Your task to perform on an android device: find which apps use the phone's location Image 0: 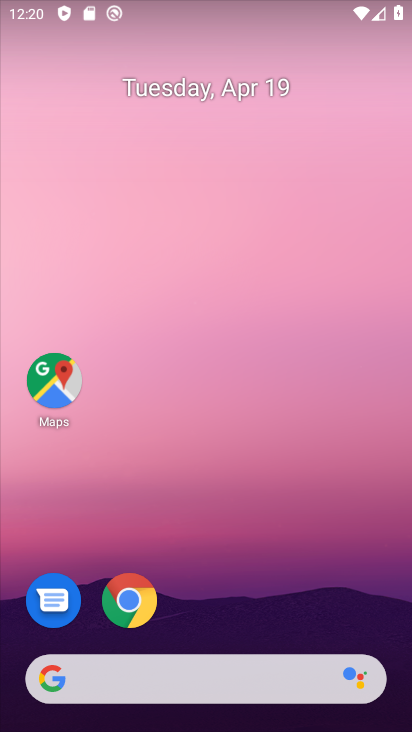
Step 0: drag from (253, 590) to (266, 142)
Your task to perform on an android device: find which apps use the phone's location Image 1: 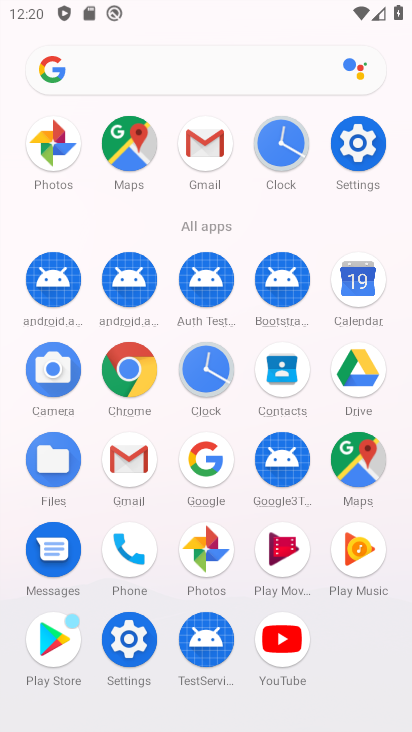
Step 1: click (370, 141)
Your task to perform on an android device: find which apps use the phone's location Image 2: 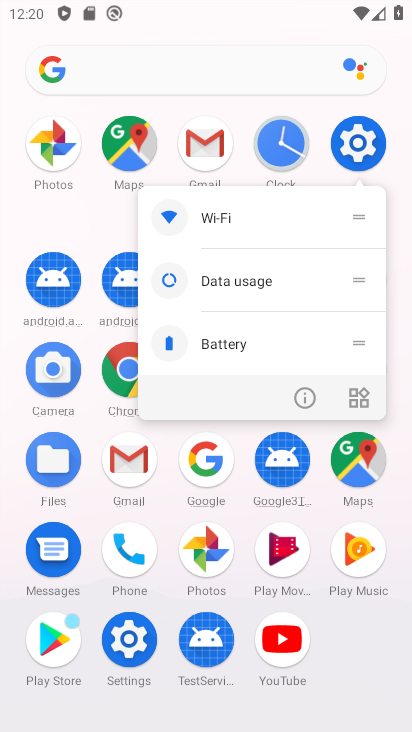
Step 2: click (362, 145)
Your task to perform on an android device: find which apps use the phone's location Image 3: 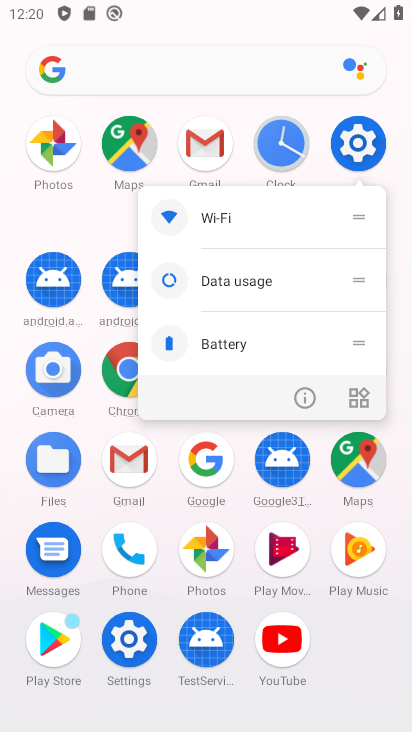
Step 3: click (118, 639)
Your task to perform on an android device: find which apps use the phone's location Image 4: 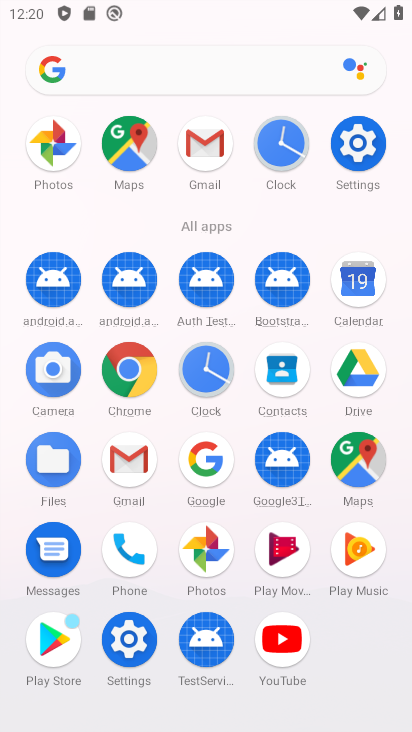
Step 4: click (124, 642)
Your task to perform on an android device: find which apps use the phone's location Image 5: 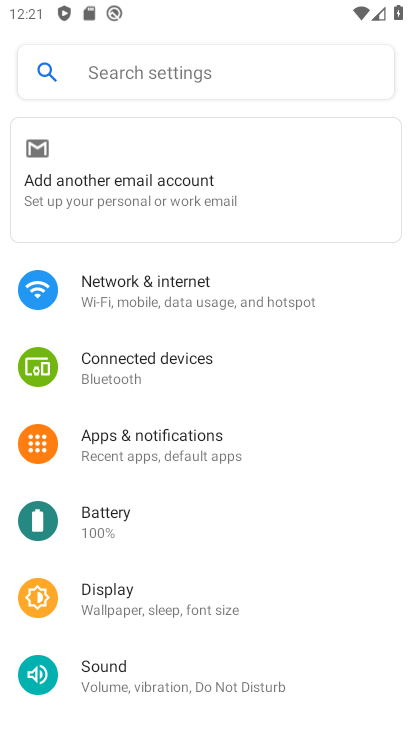
Step 5: click (256, 282)
Your task to perform on an android device: find which apps use the phone's location Image 6: 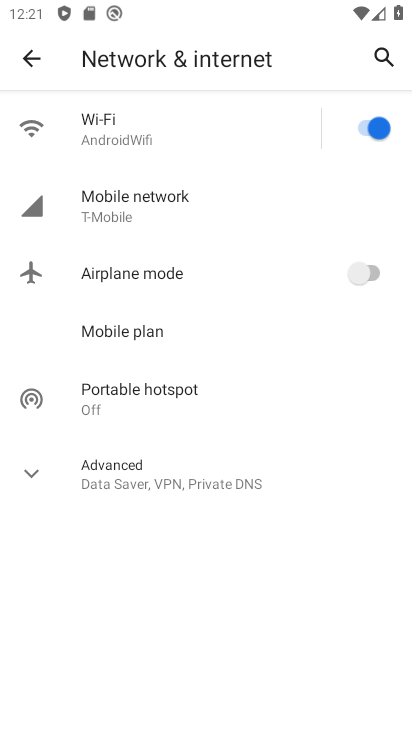
Step 6: click (33, 60)
Your task to perform on an android device: find which apps use the phone's location Image 7: 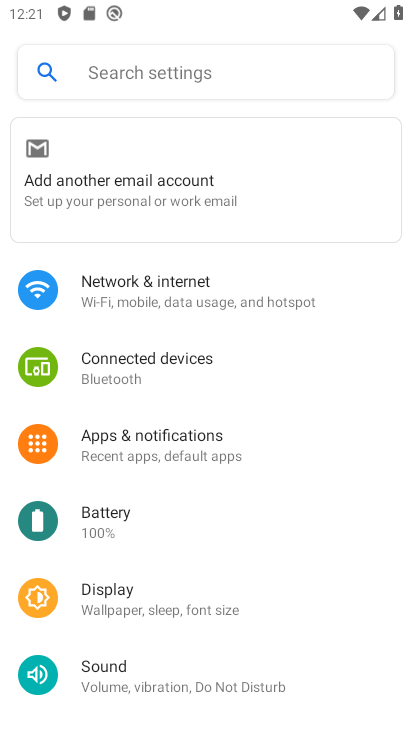
Step 7: drag from (203, 579) to (253, 211)
Your task to perform on an android device: find which apps use the phone's location Image 8: 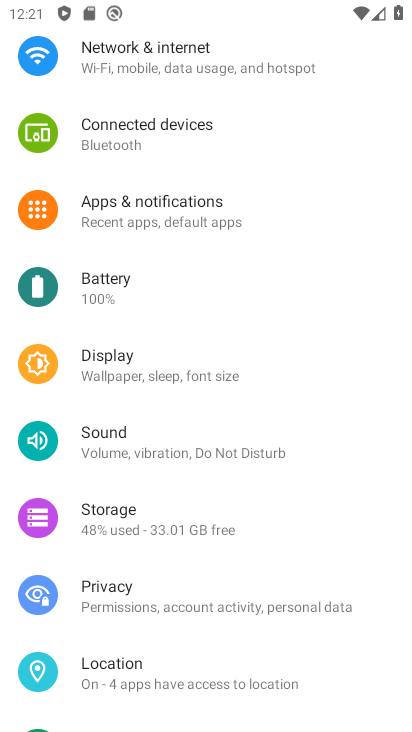
Step 8: drag from (208, 556) to (285, 249)
Your task to perform on an android device: find which apps use the phone's location Image 9: 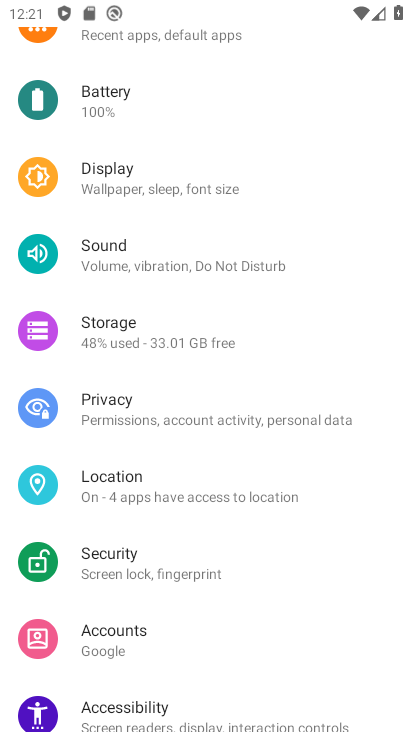
Step 9: click (221, 494)
Your task to perform on an android device: find which apps use the phone's location Image 10: 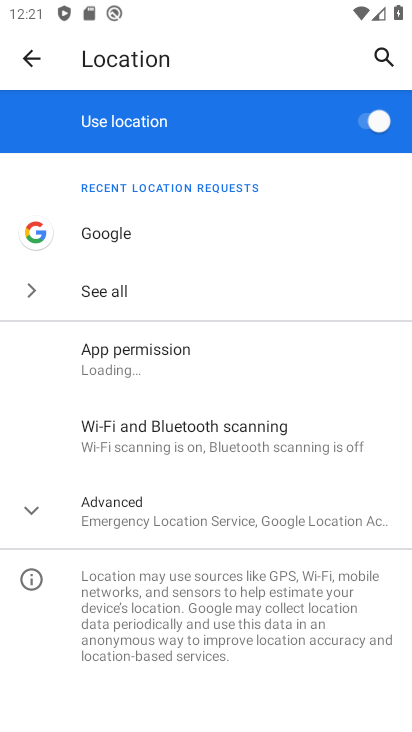
Step 10: click (165, 531)
Your task to perform on an android device: find which apps use the phone's location Image 11: 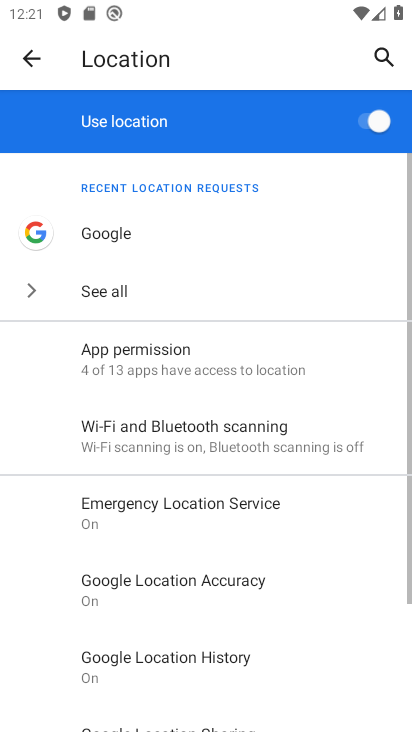
Step 11: drag from (327, 570) to (367, 155)
Your task to perform on an android device: find which apps use the phone's location Image 12: 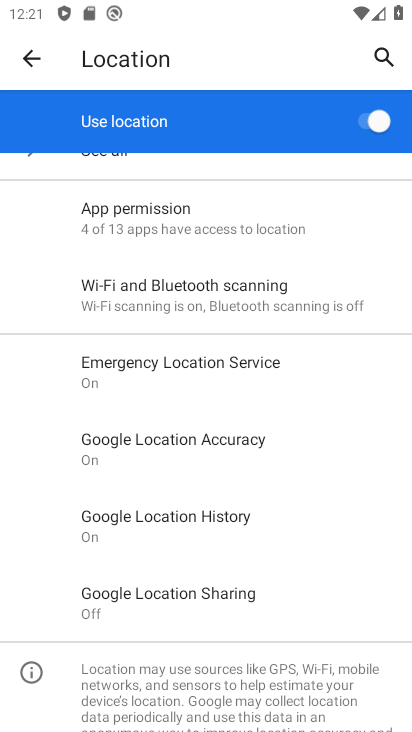
Step 12: click (202, 235)
Your task to perform on an android device: find which apps use the phone's location Image 13: 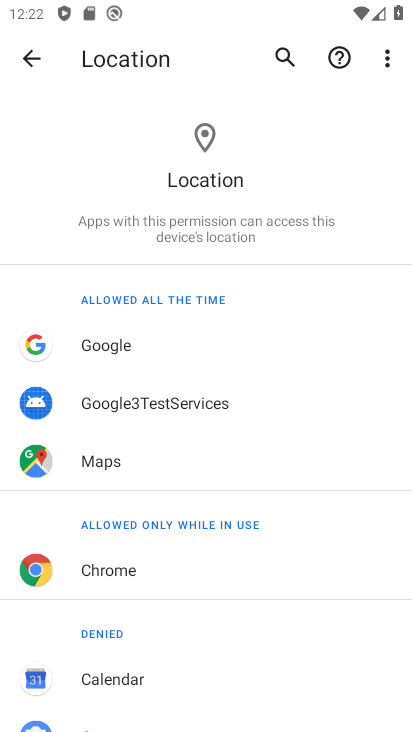
Step 13: task complete